Your task to perform on an android device: Go to accessibility settings Image 0: 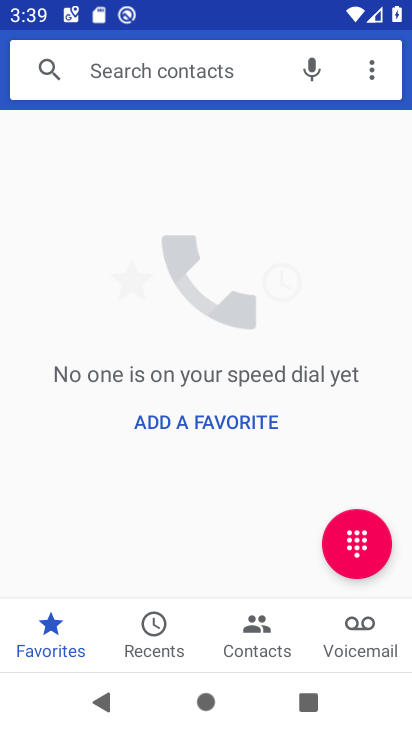
Step 0: press home button
Your task to perform on an android device: Go to accessibility settings Image 1: 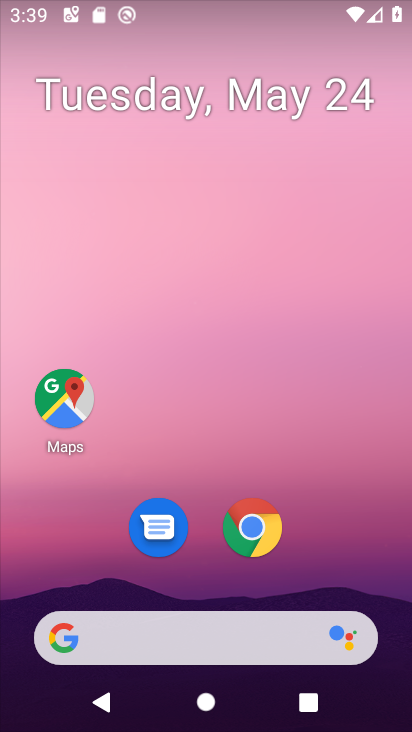
Step 1: drag from (351, 590) to (403, 16)
Your task to perform on an android device: Go to accessibility settings Image 2: 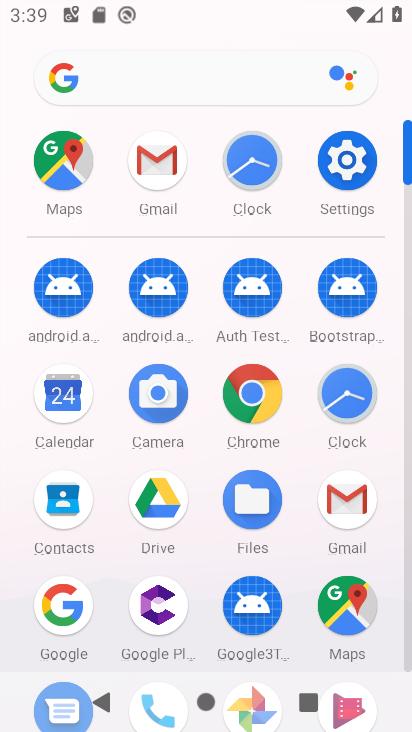
Step 2: click (341, 166)
Your task to perform on an android device: Go to accessibility settings Image 3: 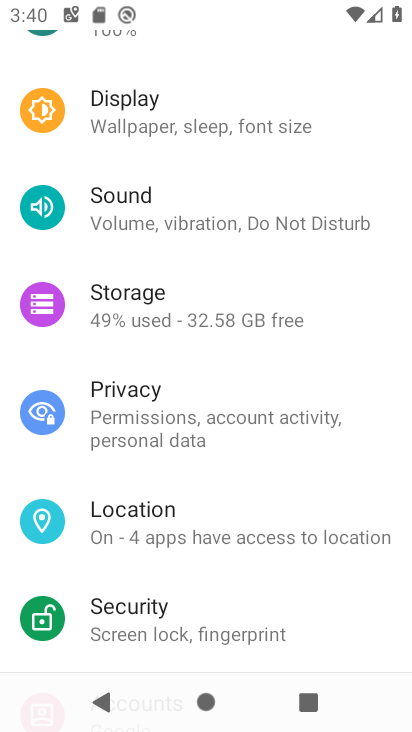
Step 3: drag from (350, 597) to (366, 168)
Your task to perform on an android device: Go to accessibility settings Image 4: 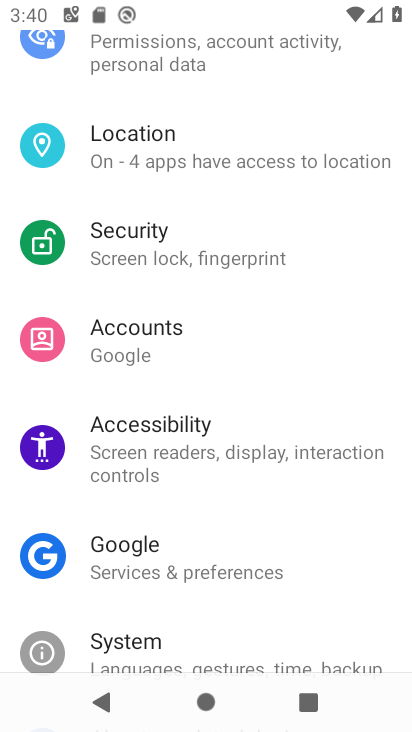
Step 4: click (106, 459)
Your task to perform on an android device: Go to accessibility settings Image 5: 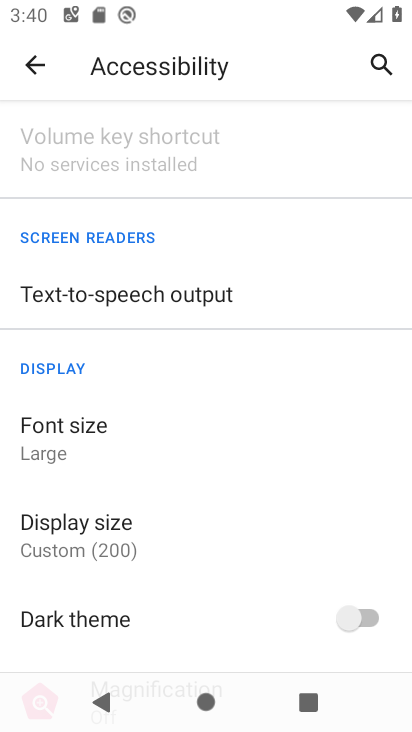
Step 5: task complete